Your task to perform on an android device: add a label to a message in the gmail app Image 0: 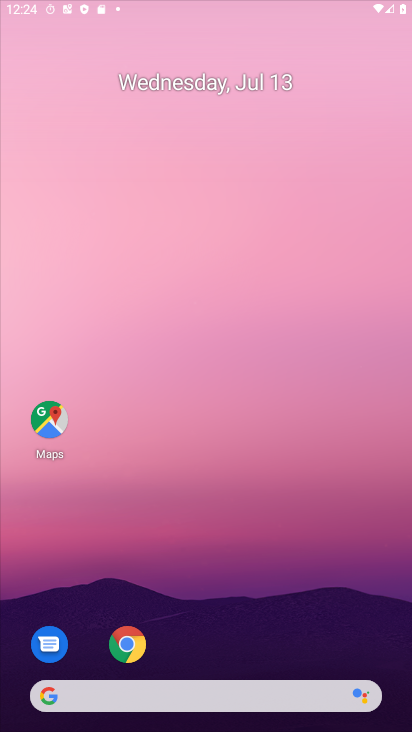
Step 0: drag from (222, 638) to (251, 190)
Your task to perform on an android device: add a label to a message in the gmail app Image 1: 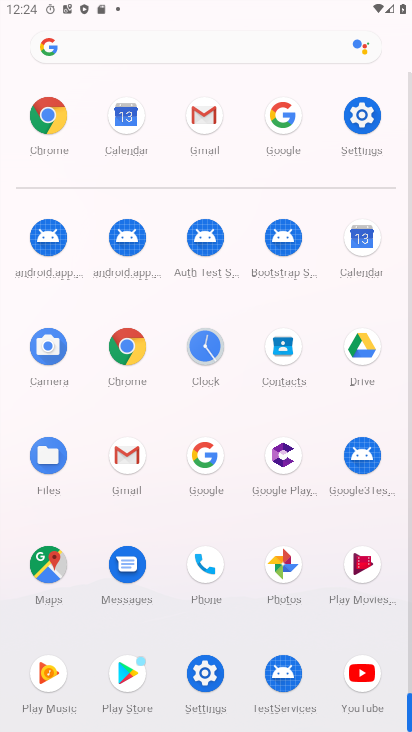
Step 1: click (206, 117)
Your task to perform on an android device: add a label to a message in the gmail app Image 2: 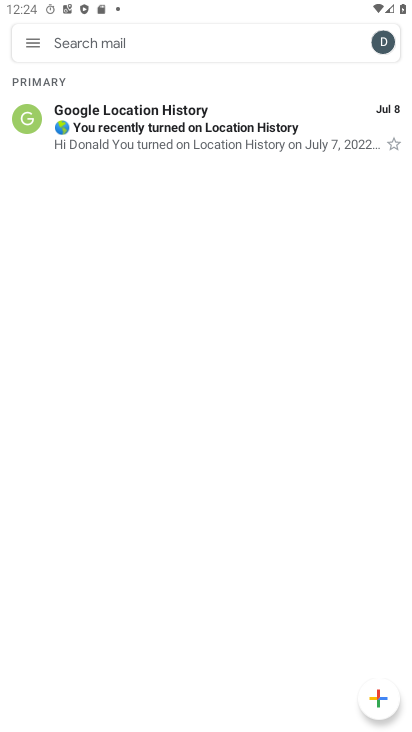
Step 2: click (182, 125)
Your task to perform on an android device: add a label to a message in the gmail app Image 3: 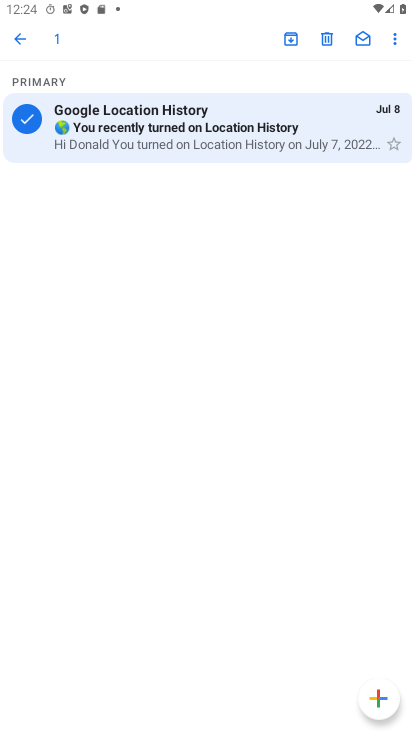
Step 3: click (392, 37)
Your task to perform on an android device: add a label to a message in the gmail app Image 4: 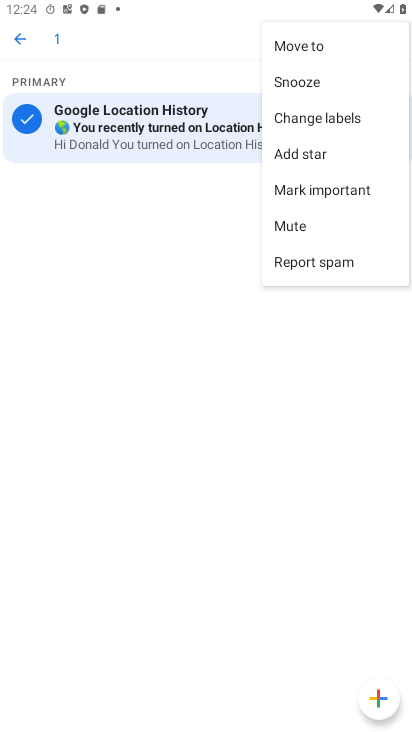
Step 4: click (308, 115)
Your task to perform on an android device: add a label to a message in the gmail app Image 5: 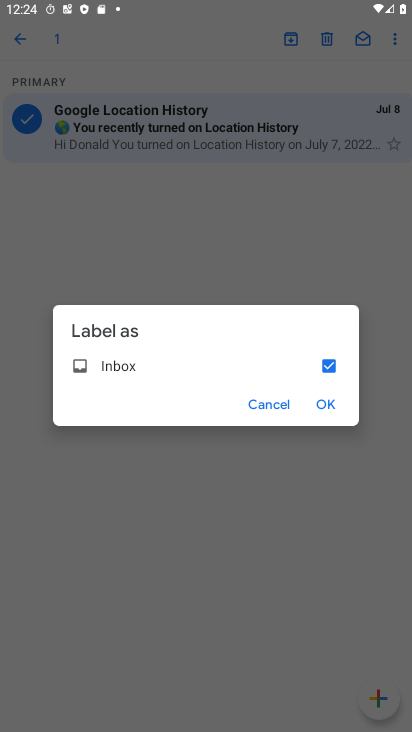
Step 5: click (332, 364)
Your task to perform on an android device: add a label to a message in the gmail app Image 6: 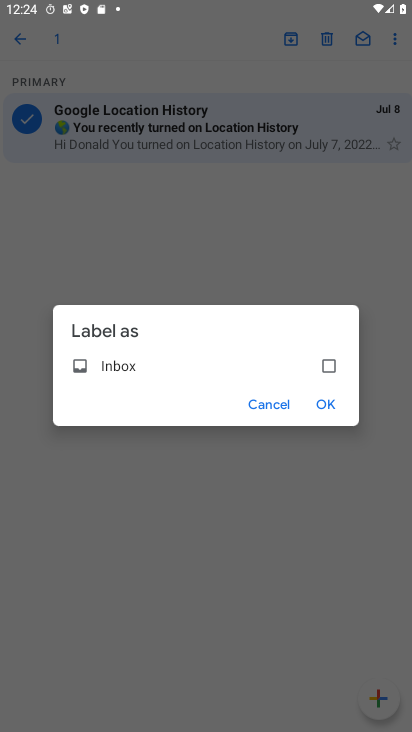
Step 6: click (330, 403)
Your task to perform on an android device: add a label to a message in the gmail app Image 7: 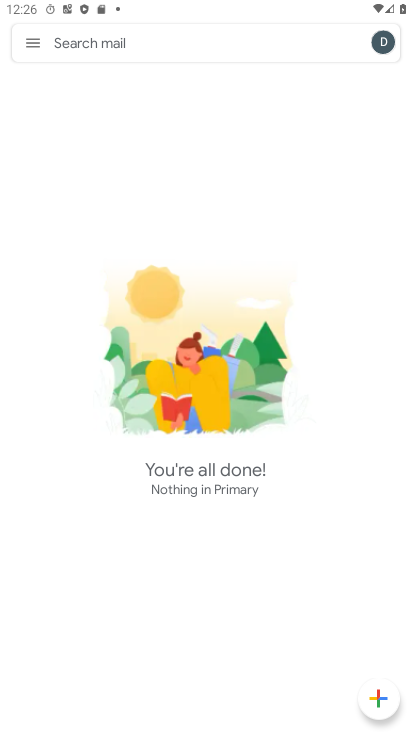
Step 7: task complete